Your task to perform on an android device: Open Youtube and go to "Your channel" Image 0: 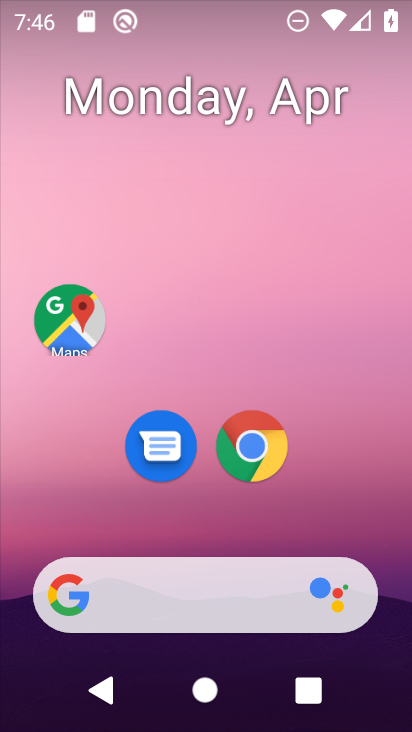
Step 0: drag from (368, 510) to (260, 19)
Your task to perform on an android device: Open Youtube and go to "Your channel" Image 1: 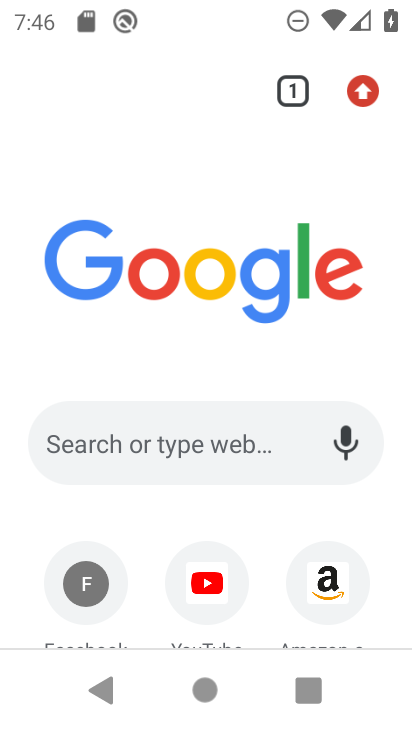
Step 1: press back button
Your task to perform on an android device: Open Youtube and go to "Your channel" Image 2: 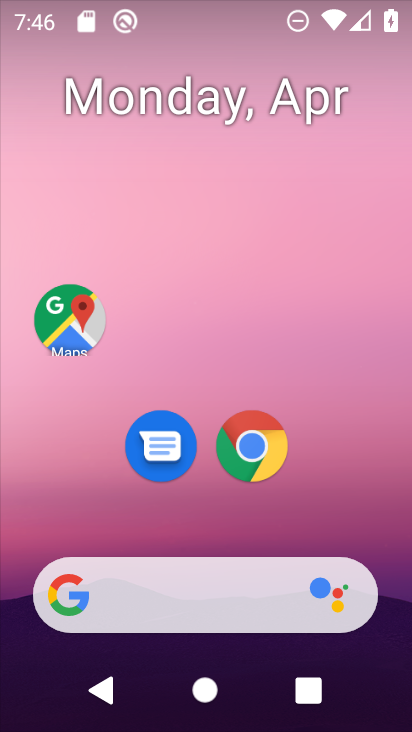
Step 2: drag from (374, 462) to (269, 30)
Your task to perform on an android device: Open Youtube and go to "Your channel" Image 3: 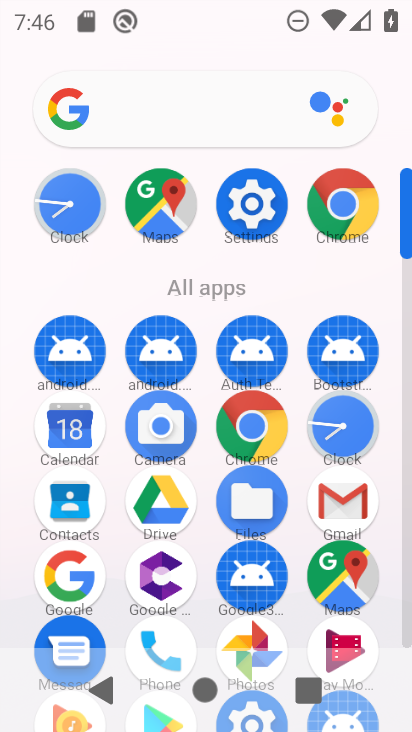
Step 3: drag from (13, 587) to (19, 254)
Your task to perform on an android device: Open Youtube and go to "Your channel" Image 4: 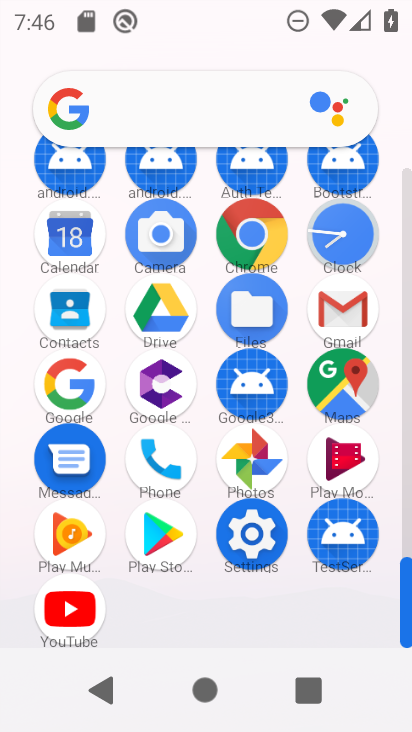
Step 4: click (68, 608)
Your task to perform on an android device: Open Youtube and go to "Your channel" Image 5: 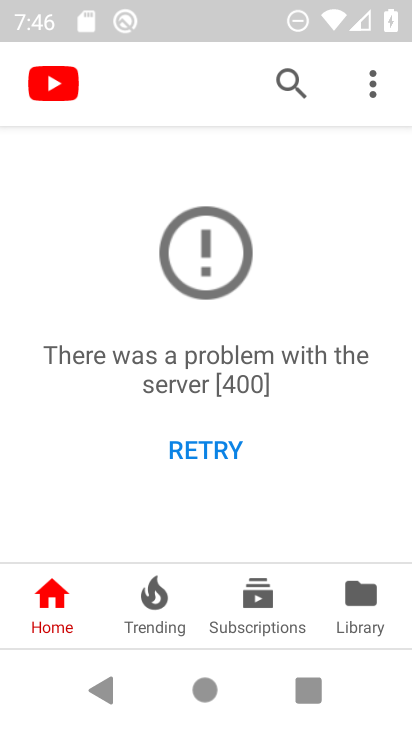
Step 5: click (371, 88)
Your task to perform on an android device: Open Youtube and go to "Your channel" Image 6: 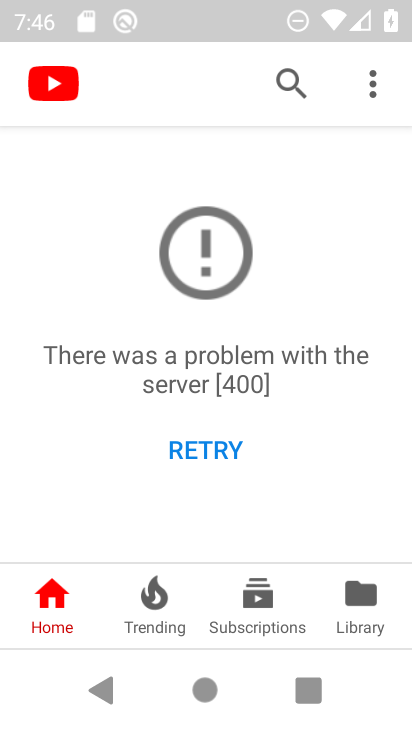
Step 6: click (375, 86)
Your task to perform on an android device: Open Youtube and go to "Your channel" Image 7: 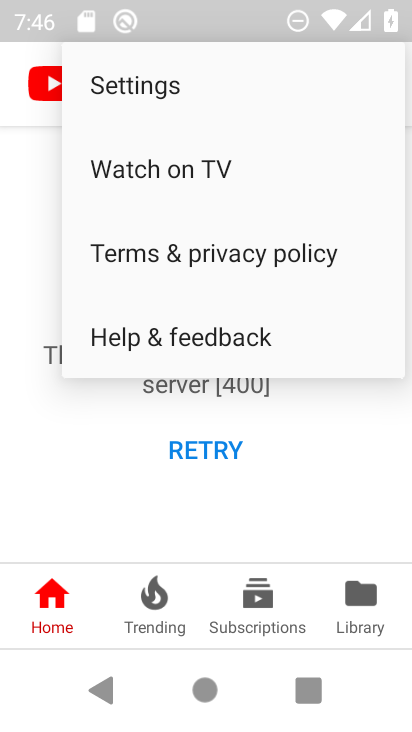
Step 7: click (185, 93)
Your task to perform on an android device: Open Youtube and go to "Your channel" Image 8: 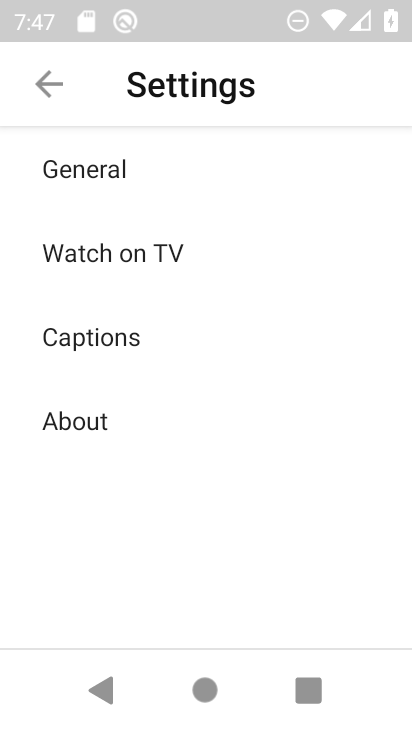
Step 8: click (153, 169)
Your task to perform on an android device: Open Youtube and go to "Your channel" Image 9: 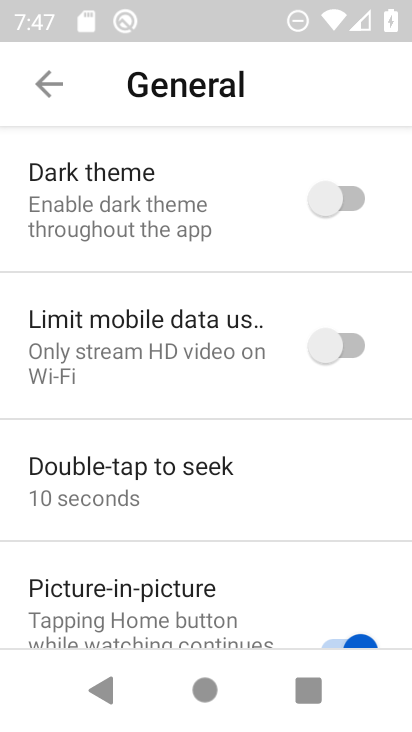
Step 9: click (54, 65)
Your task to perform on an android device: Open Youtube and go to "Your channel" Image 10: 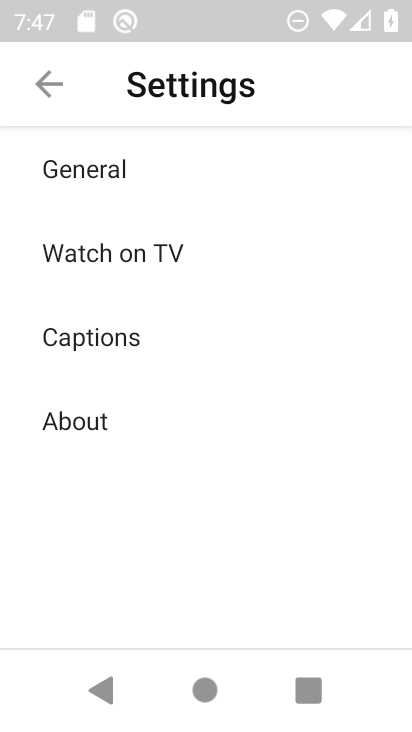
Step 10: click (55, 73)
Your task to perform on an android device: Open Youtube and go to "Your channel" Image 11: 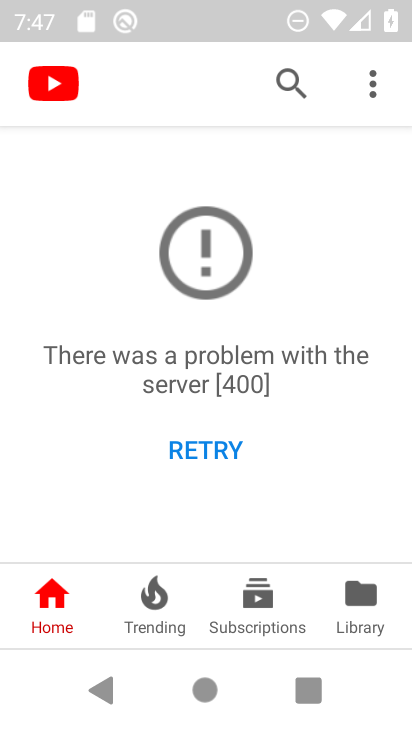
Step 11: click (55, 73)
Your task to perform on an android device: Open Youtube and go to "Your channel" Image 12: 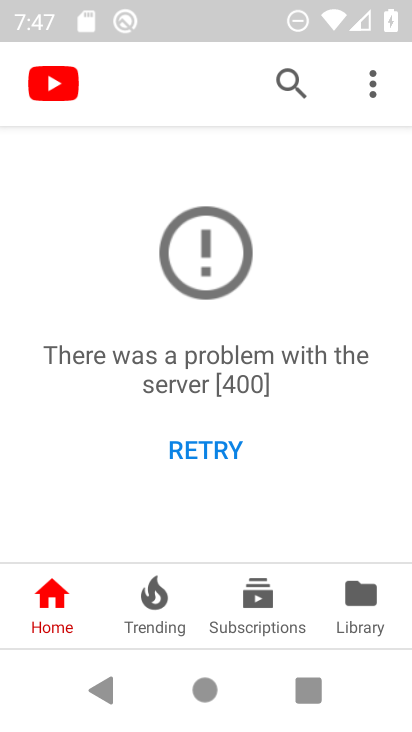
Step 12: click (376, 606)
Your task to perform on an android device: Open Youtube and go to "Your channel" Image 13: 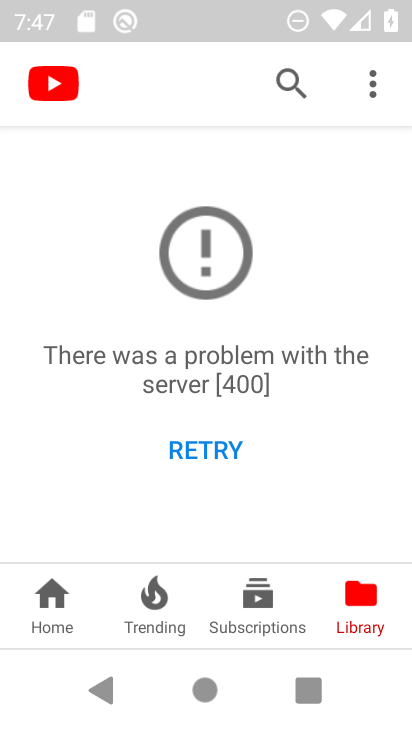
Step 13: click (376, 606)
Your task to perform on an android device: Open Youtube and go to "Your channel" Image 14: 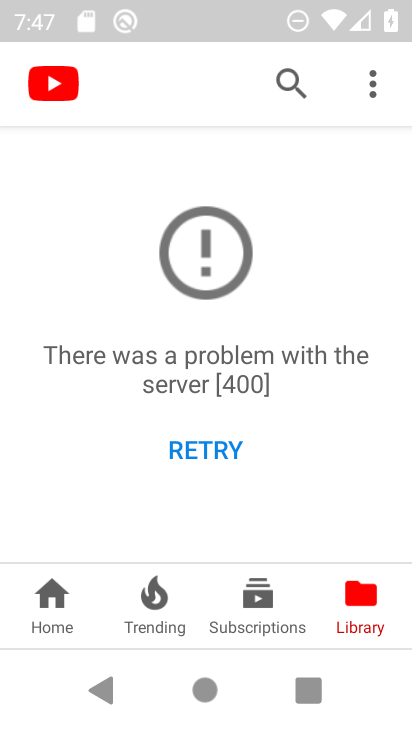
Step 14: click (216, 453)
Your task to perform on an android device: Open Youtube and go to "Your channel" Image 15: 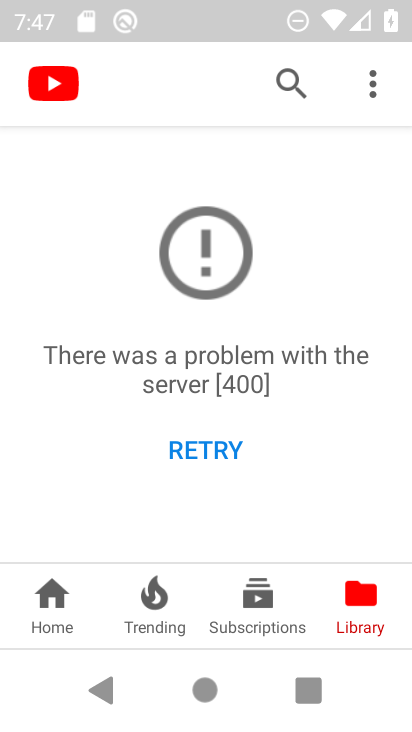
Step 15: click (355, 600)
Your task to perform on an android device: Open Youtube and go to "Your channel" Image 16: 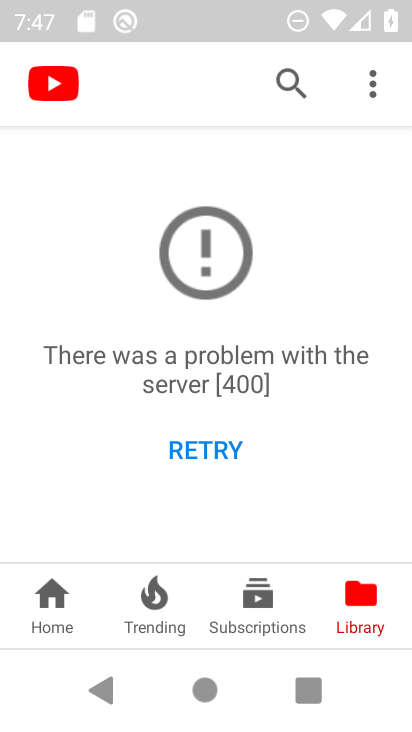
Step 16: task complete